Your task to perform on an android device: Open Youtube and go to the subscriptions tab Image 0: 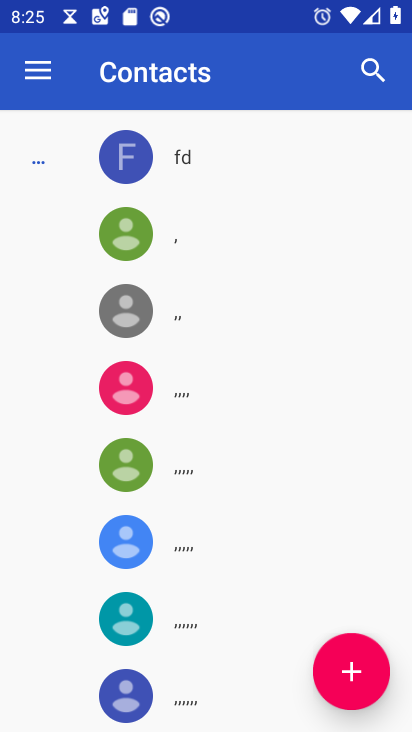
Step 0: press home button
Your task to perform on an android device: Open Youtube and go to the subscriptions tab Image 1: 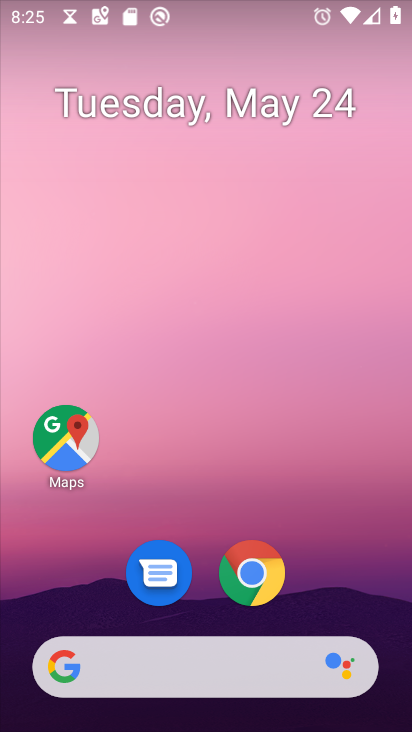
Step 1: drag from (389, 551) to (410, 609)
Your task to perform on an android device: Open Youtube and go to the subscriptions tab Image 2: 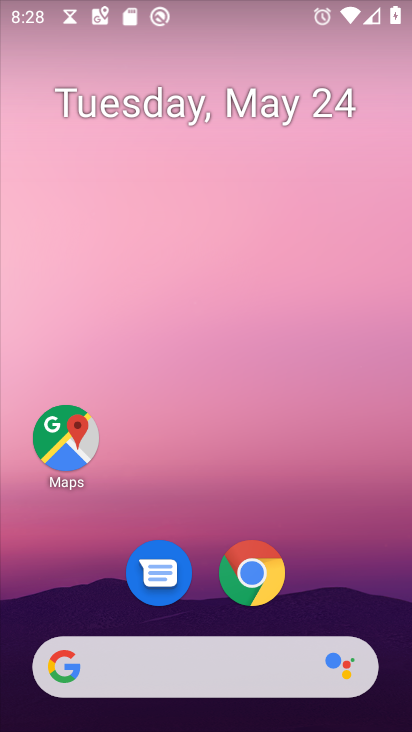
Step 2: drag from (395, 644) to (352, 397)
Your task to perform on an android device: Open Youtube and go to the subscriptions tab Image 3: 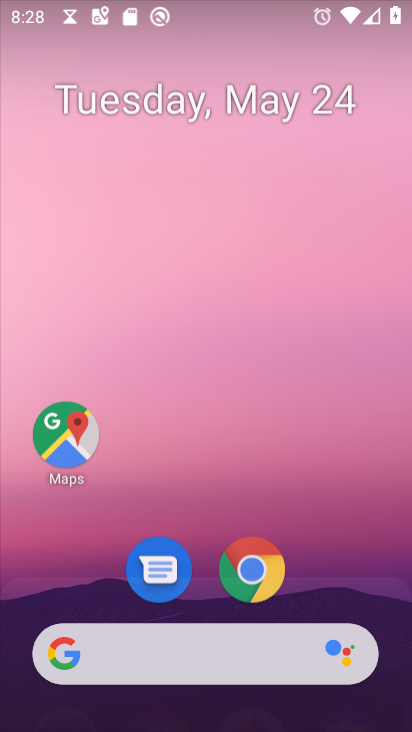
Step 3: drag from (368, 672) to (411, 514)
Your task to perform on an android device: Open Youtube and go to the subscriptions tab Image 4: 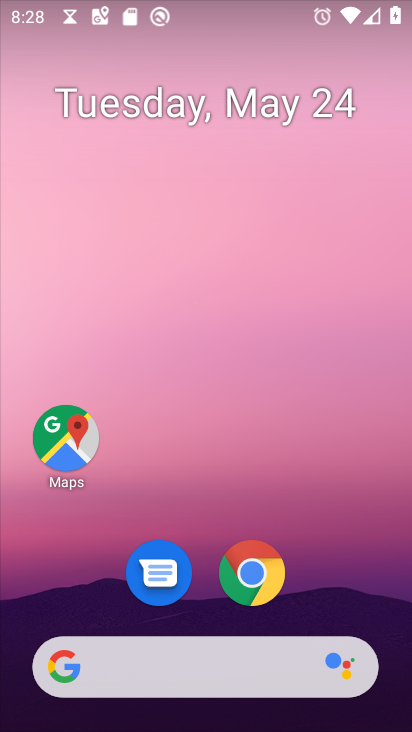
Step 4: drag from (395, 646) to (362, 91)
Your task to perform on an android device: Open Youtube and go to the subscriptions tab Image 5: 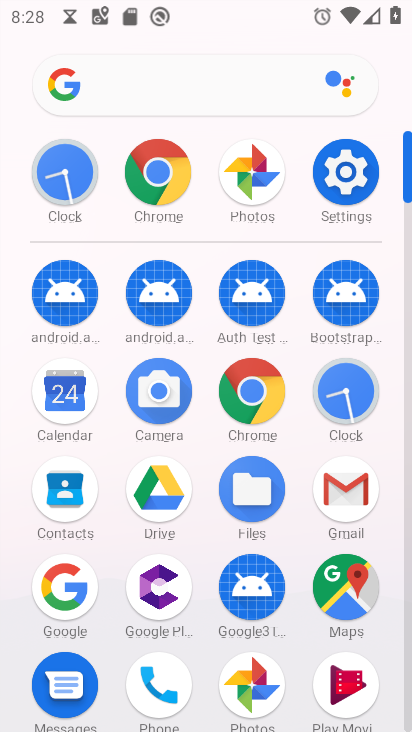
Step 5: click (350, 694)
Your task to perform on an android device: Open Youtube and go to the subscriptions tab Image 6: 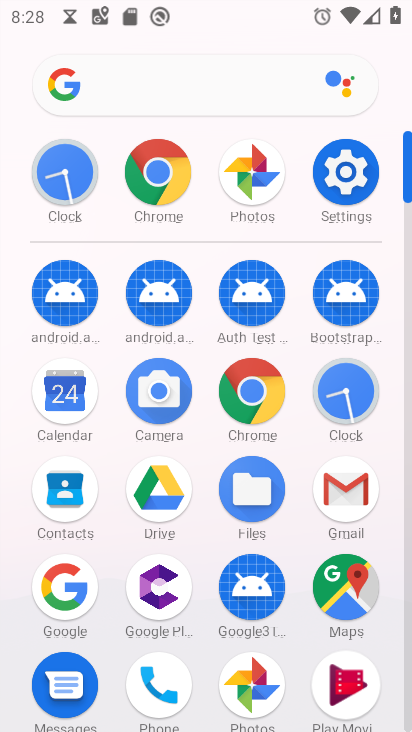
Step 6: click (343, 688)
Your task to perform on an android device: Open Youtube and go to the subscriptions tab Image 7: 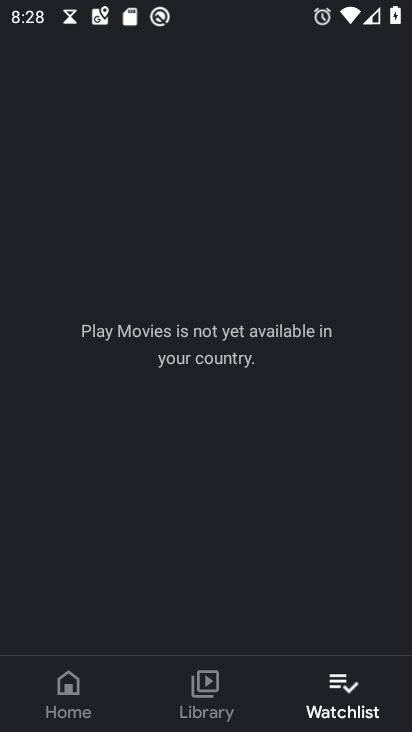
Step 7: task complete